Your task to perform on an android device: open chrome privacy settings Image 0: 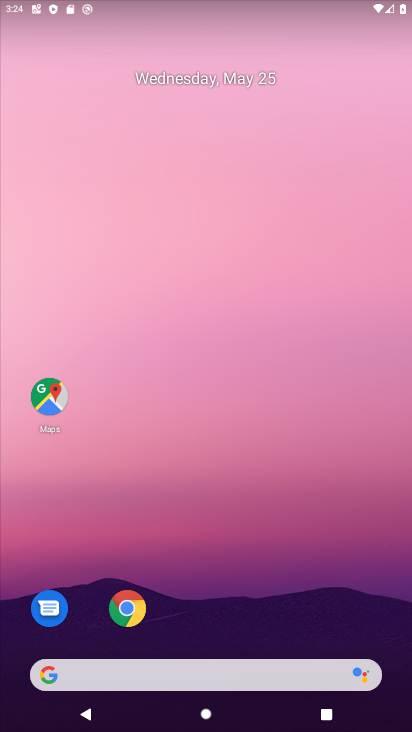
Step 0: click (122, 602)
Your task to perform on an android device: open chrome privacy settings Image 1: 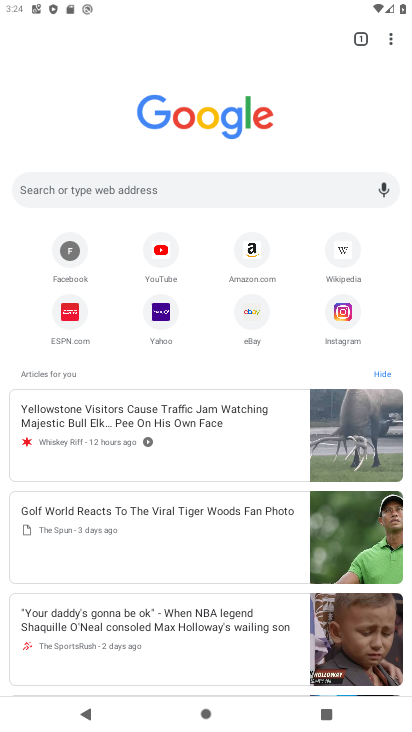
Step 1: click (398, 38)
Your task to perform on an android device: open chrome privacy settings Image 2: 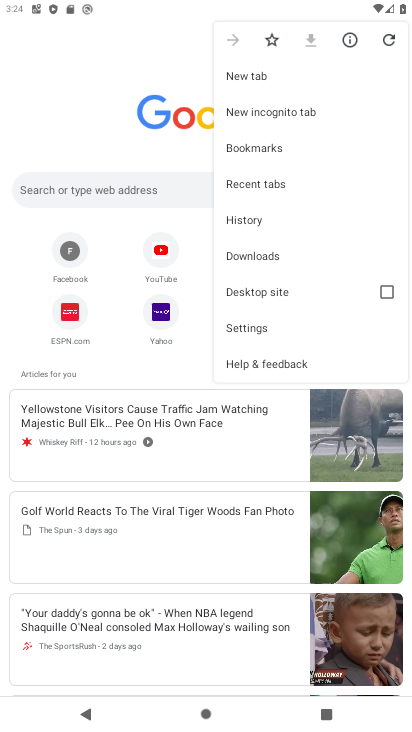
Step 2: click (267, 323)
Your task to perform on an android device: open chrome privacy settings Image 3: 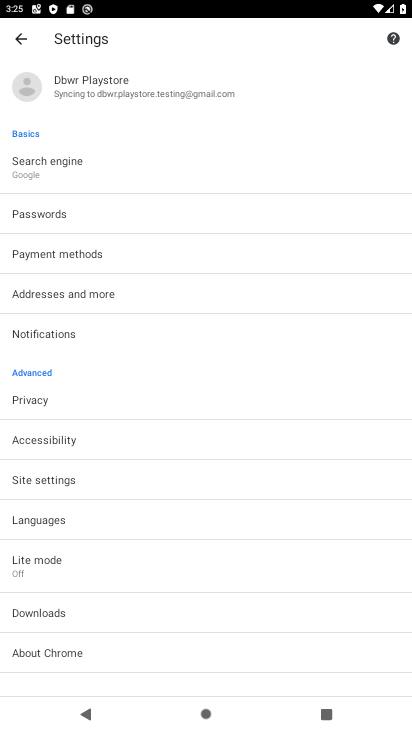
Step 3: drag from (75, 640) to (190, 200)
Your task to perform on an android device: open chrome privacy settings Image 4: 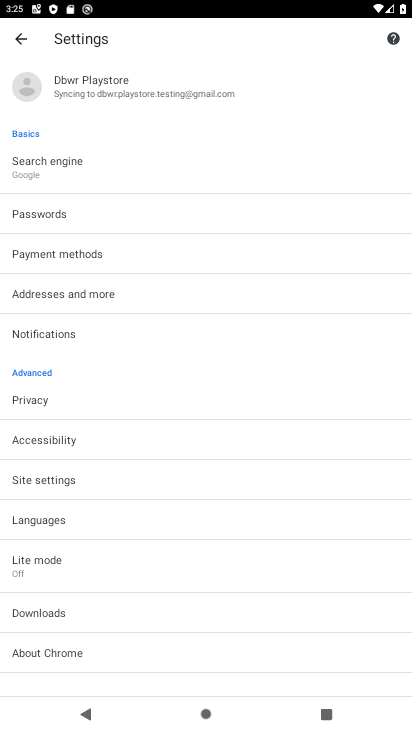
Step 4: click (73, 477)
Your task to perform on an android device: open chrome privacy settings Image 5: 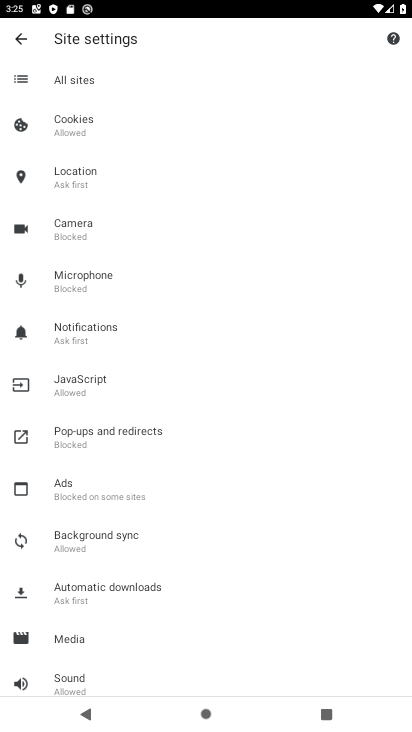
Step 5: click (20, 37)
Your task to perform on an android device: open chrome privacy settings Image 6: 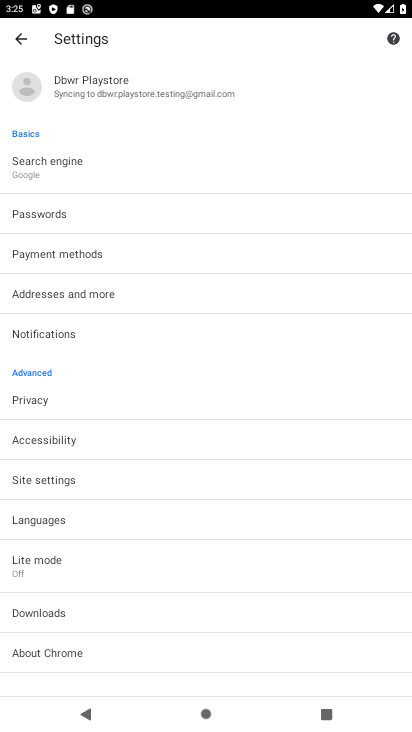
Step 6: click (50, 408)
Your task to perform on an android device: open chrome privacy settings Image 7: 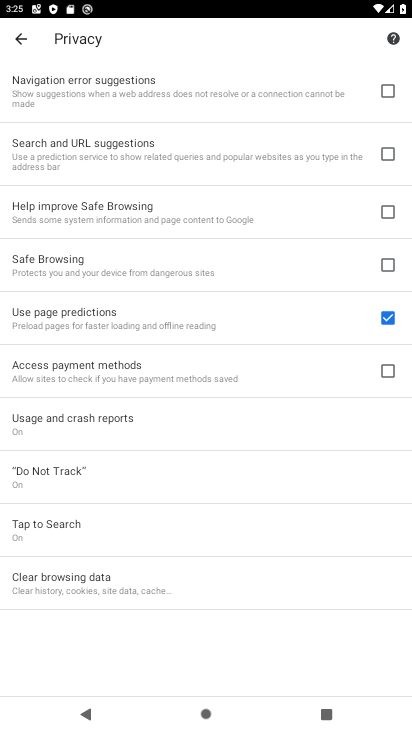
Step 7: task complete